Your task to perform on an android device: Find coffee shops on Maps Image 0: 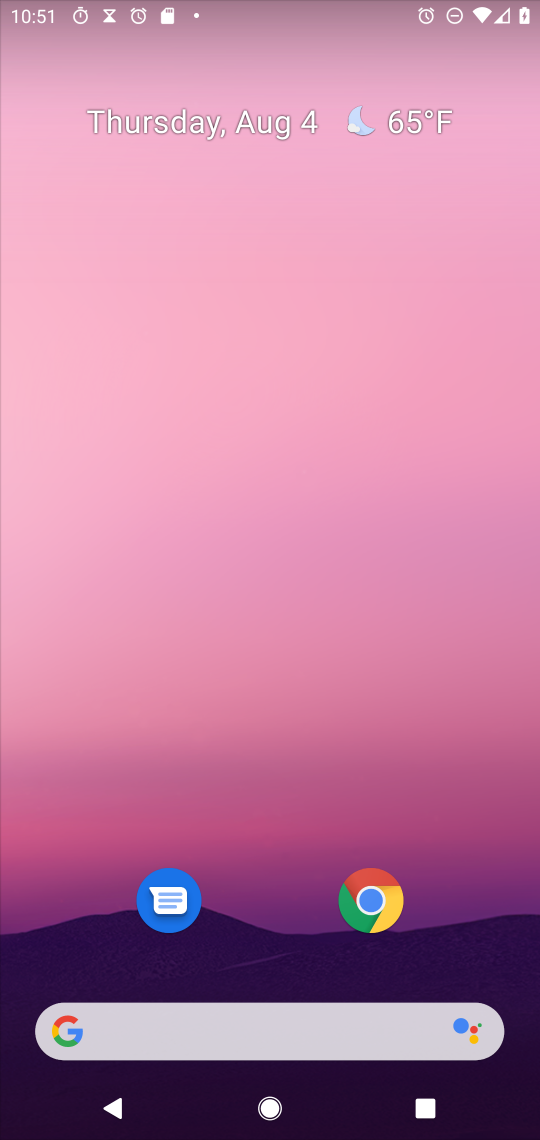
Step 0: drag from (207, 1016) to (269, 37)
Your task to perform on an android device: Find coffee shops on Maps Image 1: 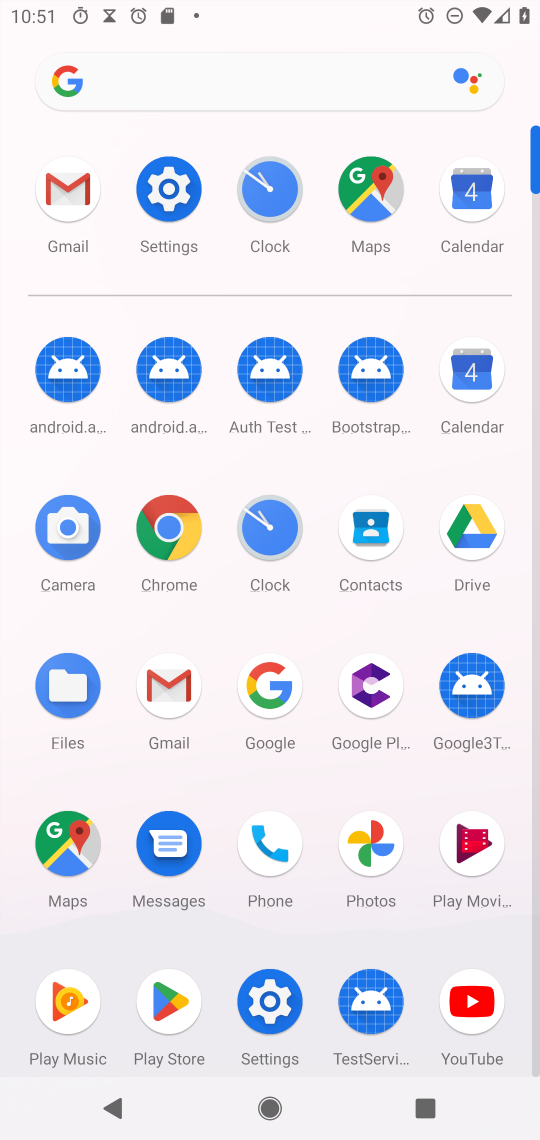
Step 1: click (65, 843)
Your task to perform on an android device: Find coffee shops on Maps Image 2: 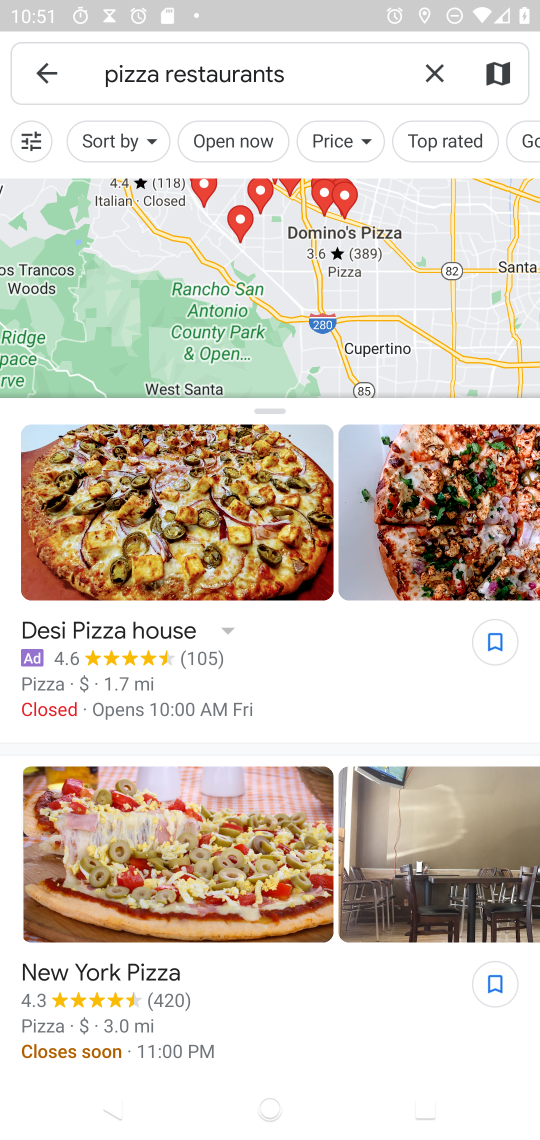
Step 2: click (434, 71)
Your task to perform on an android device: Find coffee shops on Maps Image 3: 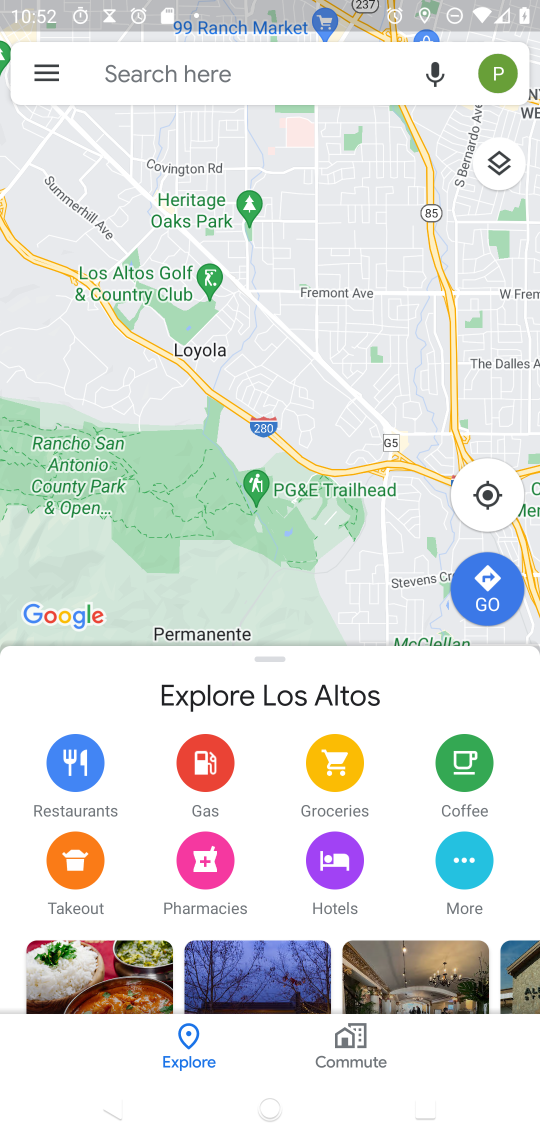
Step 3: type "coffee shops"
Your task to perform on an android device: Find coffee shops on Maps Image 4: 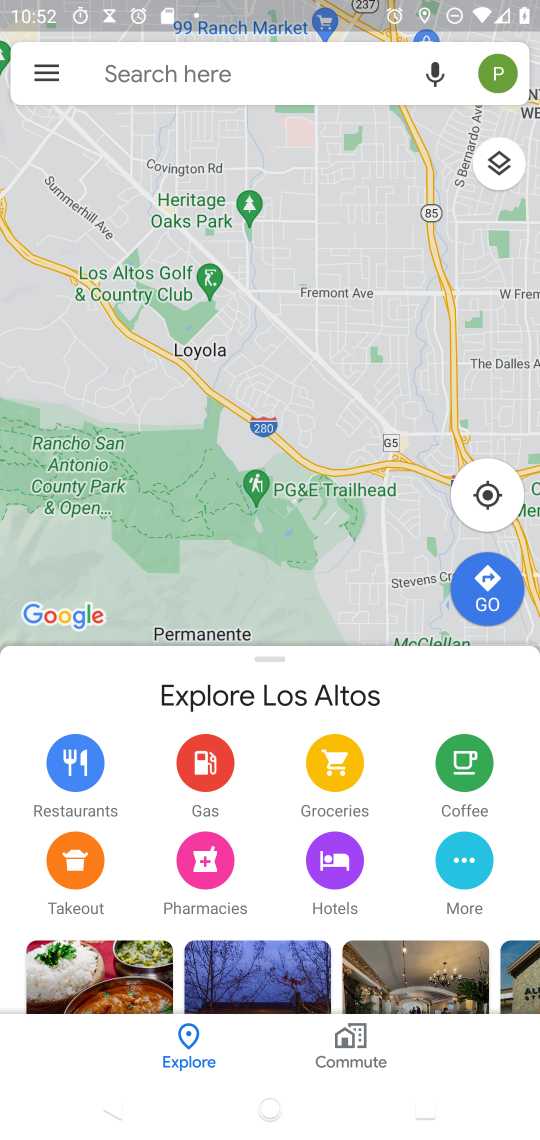
Step 4: click (236, 75)
Your task to perform on an android device: Find coffee shops on Maps Image 5: 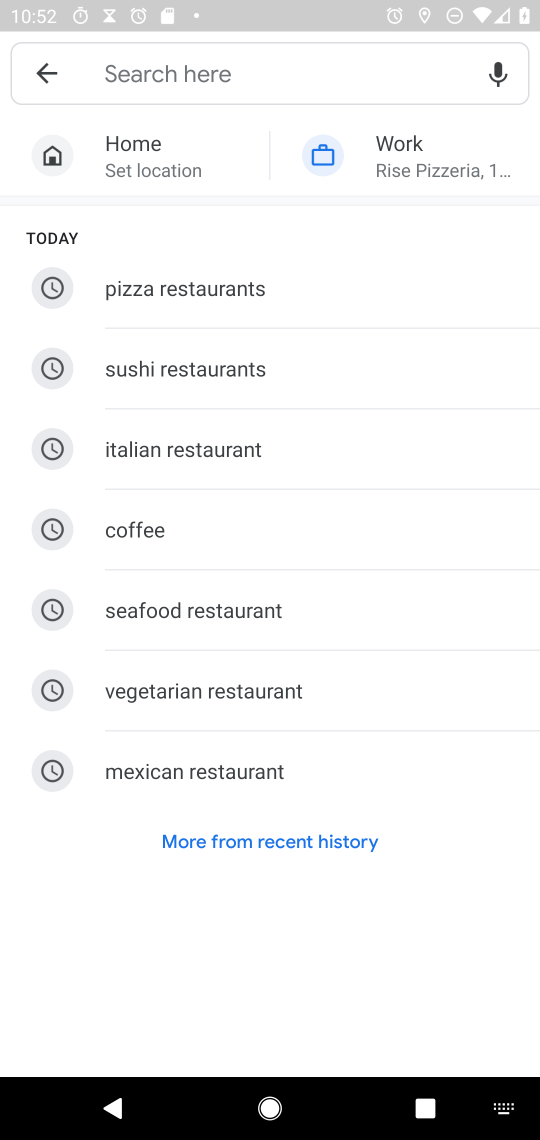
Step 5: type "coffee shops"
Your task to perform on an android device: Find coffee shops on Maps Image 6: 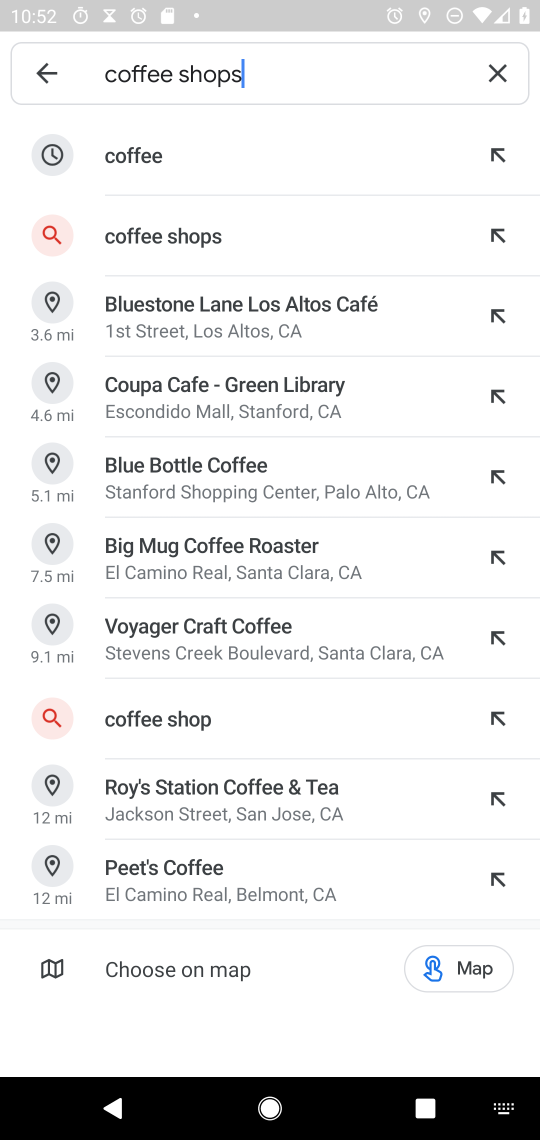
Step 6: click (157, 224)
Your task to perform on an android device: Find coffee shops on Maps Image 7: 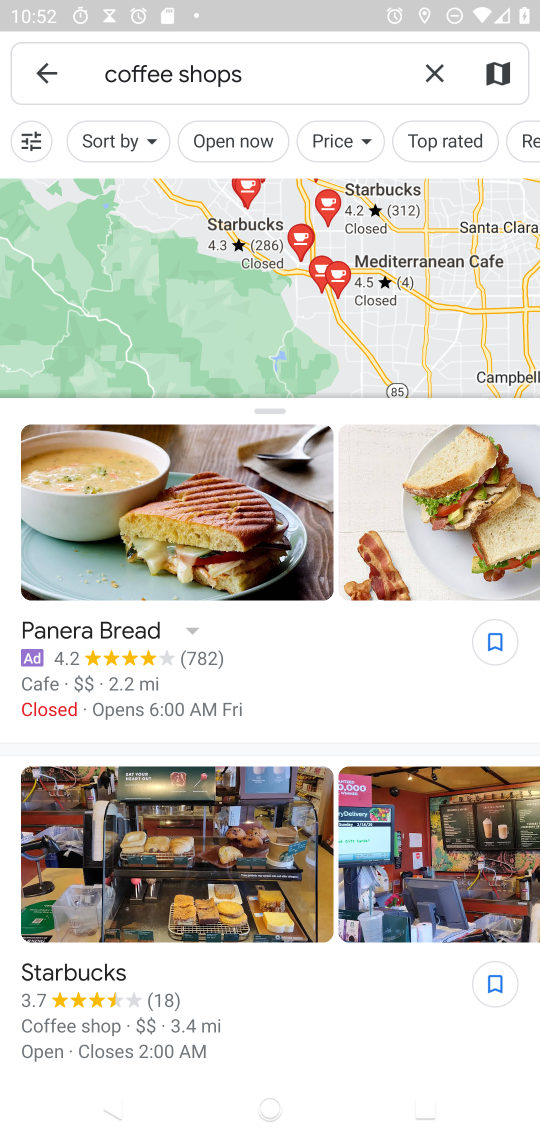
Step 7: task complete